Your task to perform on an android device: Search for seafood restaurants on Google Maps Image 0: 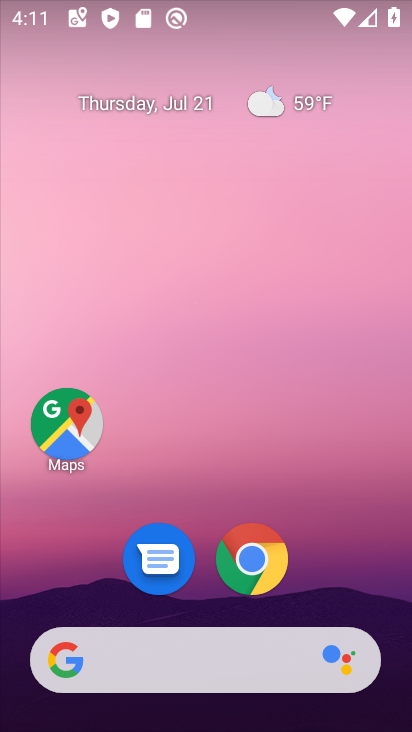
Step 0: click (85, 436)
Your task to perform on an android device: Search for seafood restaurants on Google Maps Image 1: 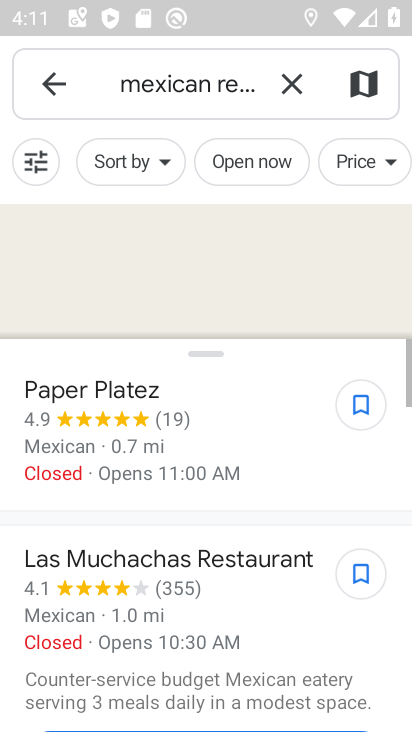
Step 1: click (295, 76)
Your task to perform on an android device: Search for seafood restaurants on Google Maps Image 2: 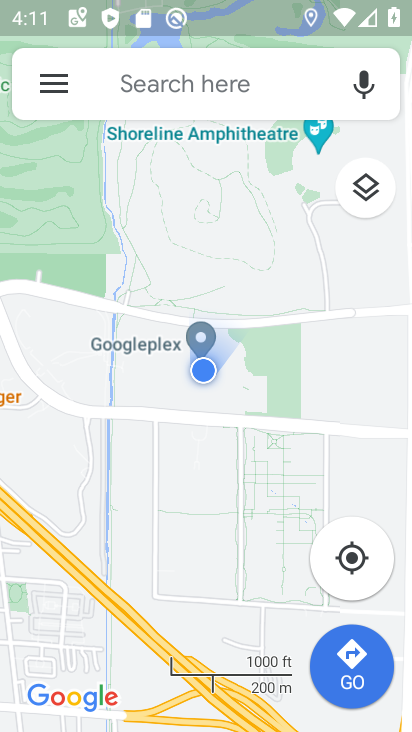
Step 2: click (176, 86)
Your task to perform on an android device: Search for seafood restaurants on Google Maps Image 3: 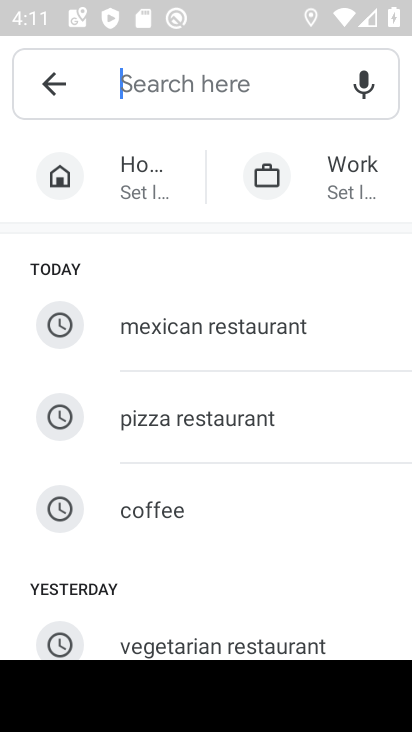
Step 3: drag from (182, 617) to (282, 110)
Your task to perform on an android device: Search for seafood restaurants on Google Maps Image 4: 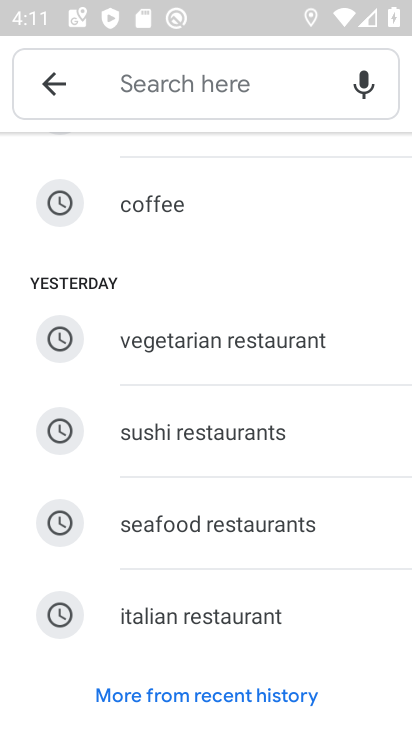
Step 4: click (161, 515)
Your task to perform on an android device: Search for seafood restaurants on Google Maps Image 5: 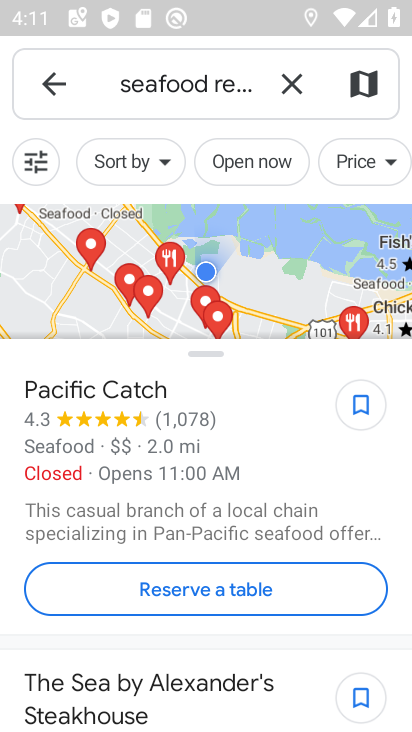
Step 5: task complete